Your task to perform on an android device: Open Reddit.com Image 0: 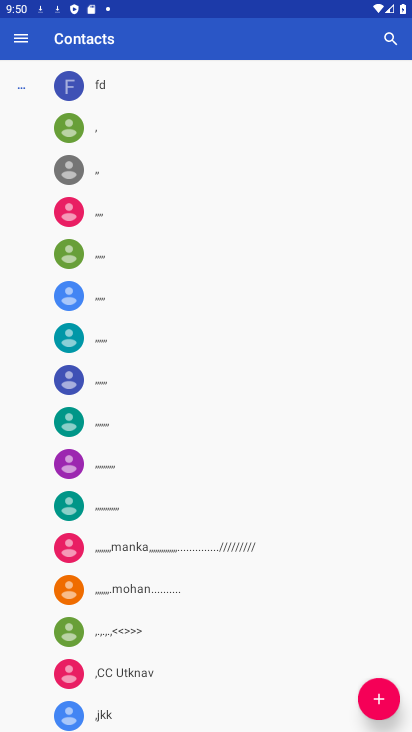
Step 0: press home button
Your task to perform on an android device: Open Reddit.com Image 1: 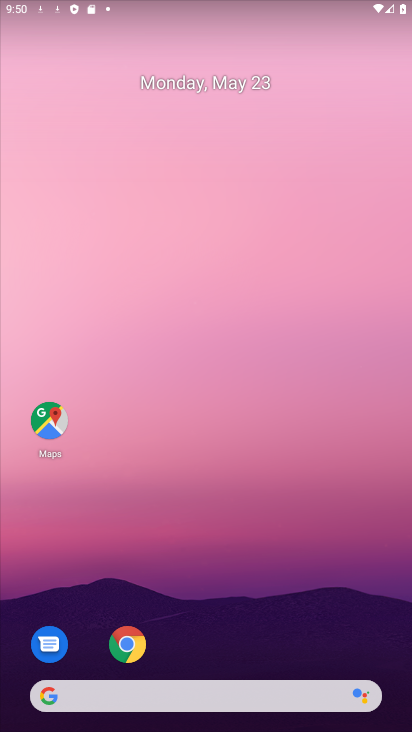
Step 1: drag from (217, 712) to (221, 141)
Your task to perform on an android device: Open Reddit.com Image 2: 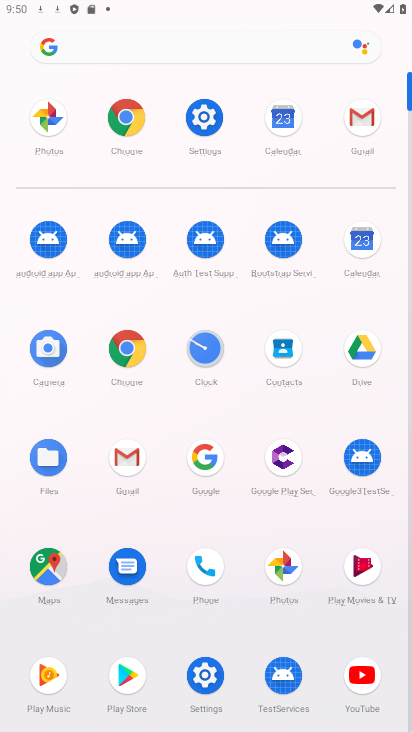
Step 2: click (136, 126)
Your task to perform on an android device: Open Reddit.com Image 3: 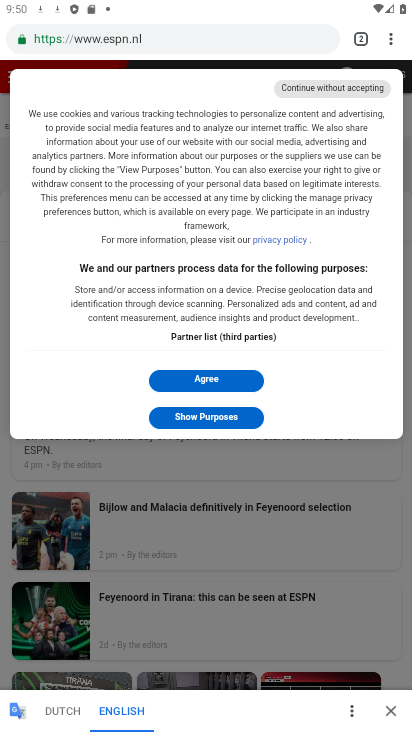
Step 3: click (185, 42)
Your task to perform on an android device: Open Reddit.com Image 4: 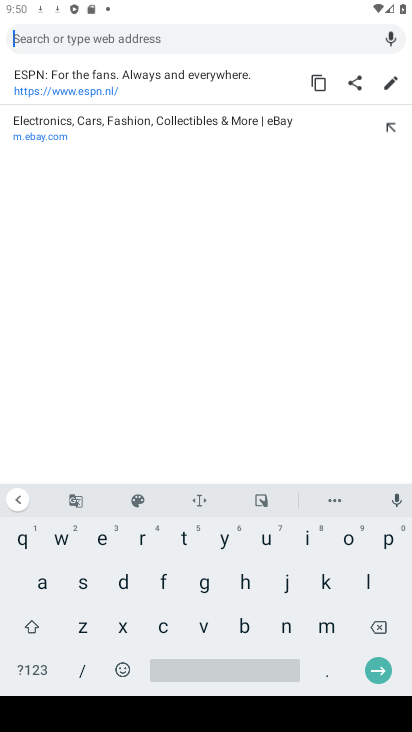
Step 4: click (144, 542)
Your task to perform on an android device: Open Reddit.com Image 5: 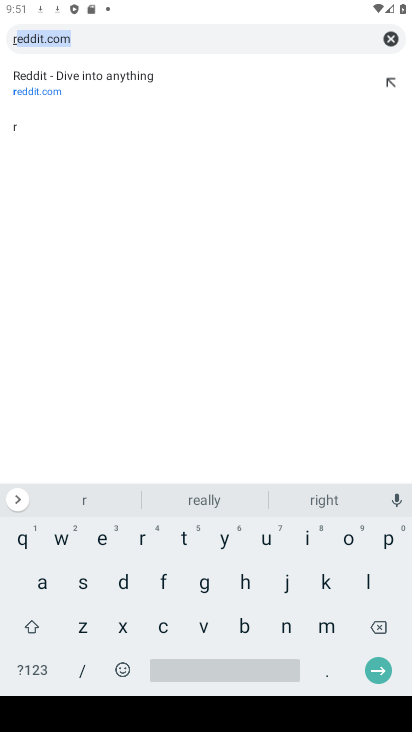
Step 5: click (40, 87)
Your task to perform on an android device: Open Reddit.com Image 6: 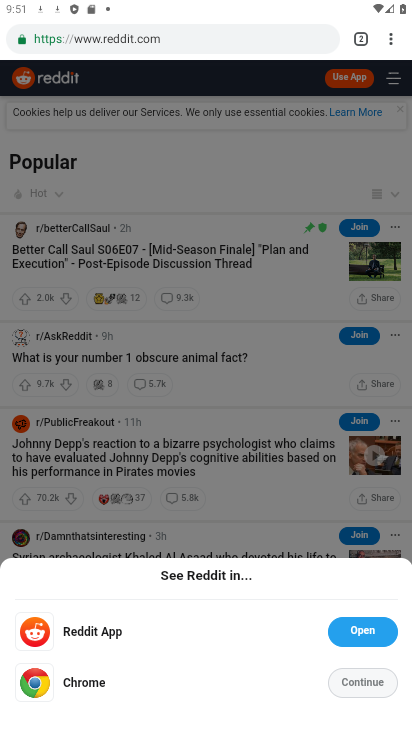
Step 6: task complete